Your task to perform on an android device: Open the stopwatch Image 0: 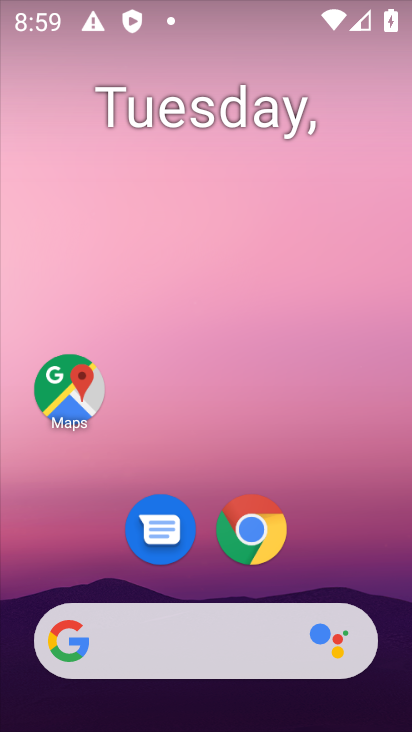
Step 0: drag from (205, 545) to (235, 49)
Your task to perform on an android device: Open the stopwatch Image 1: 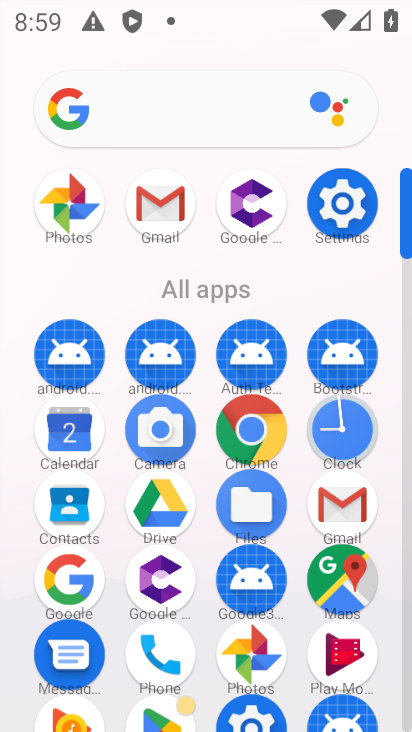
Step 1: click (338, 433)
Your task to perform on an android device: Open the stopwatch Image 2: 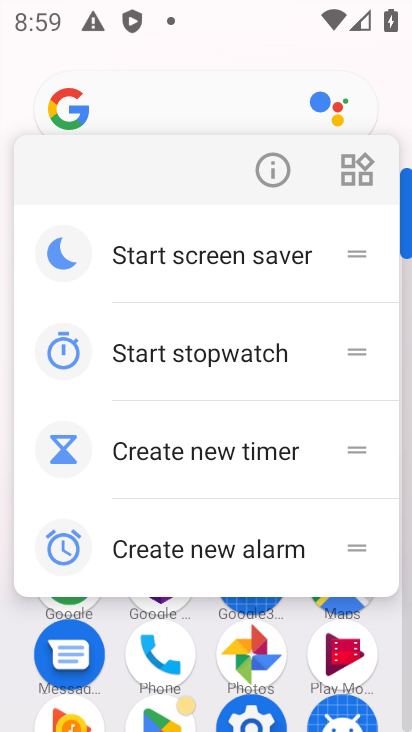
Step 2: click (270, 149)
Your task to perform on an android device: Open the stopwatch Image 3: 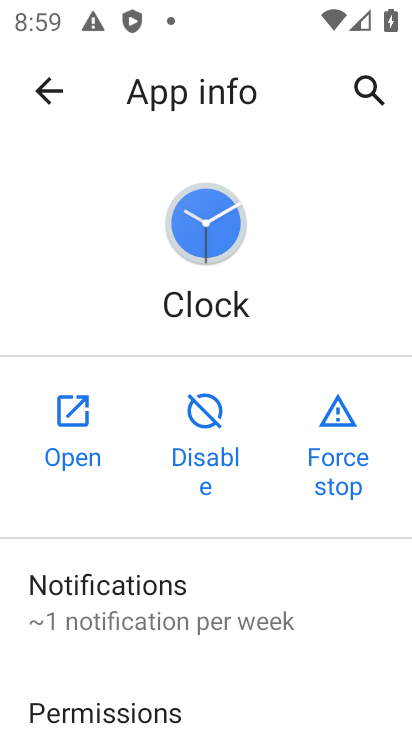
Step 3: click (77, 417)
Your task to perform on an android device: Open the stopwatch Image 4: 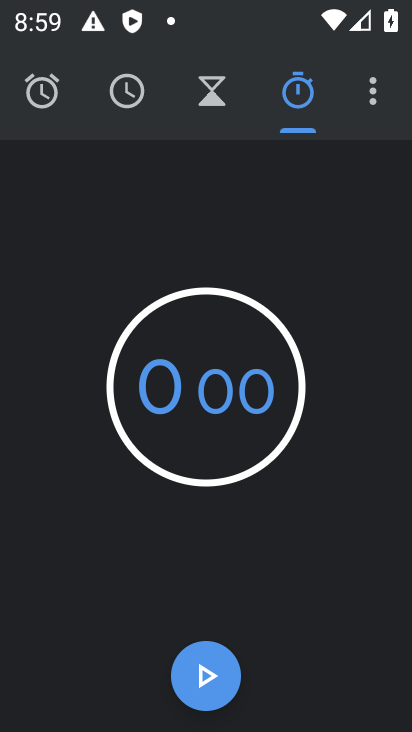
Step 4: click (197, 677)
Your task to perform on an android device: Open the stopwatch Image 5: 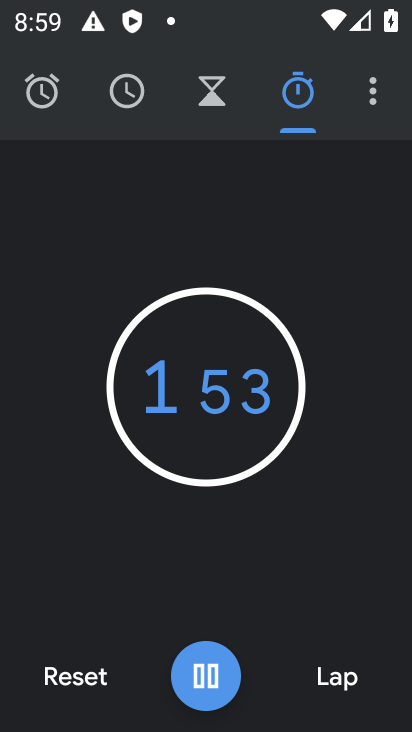
Step 5: task complete